Your task to perform on an android device: toggle notification dots Image 0: 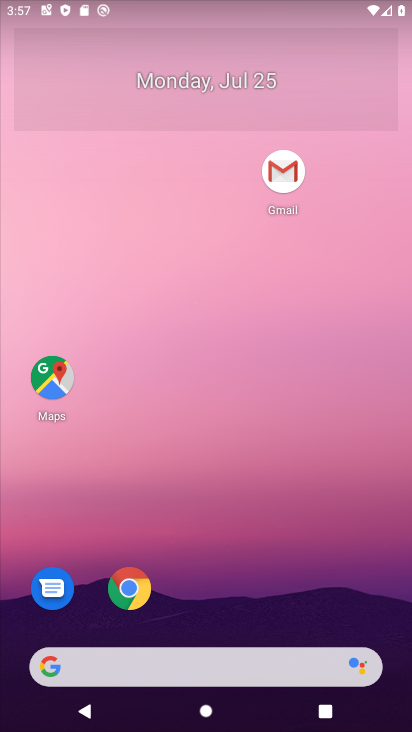
Step 0: drag from (222, 423) to (10, 217)
Your task to perform on an android device: toggle notification dots Image 1: 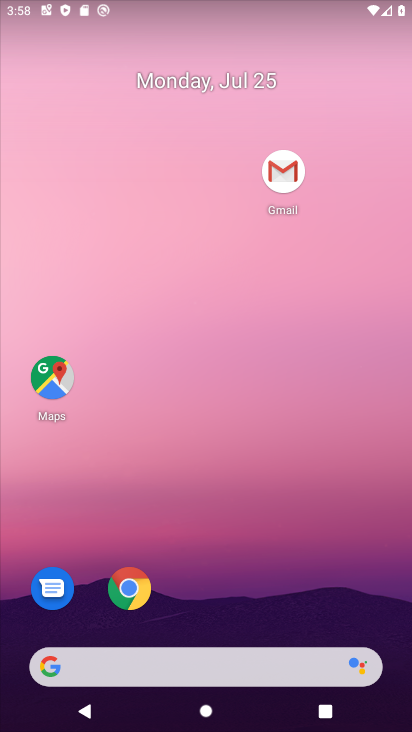
Step 1: drag from (356, 610) to (202, 60)
Your task to perform on an android device: toggle notification dots Image 2: 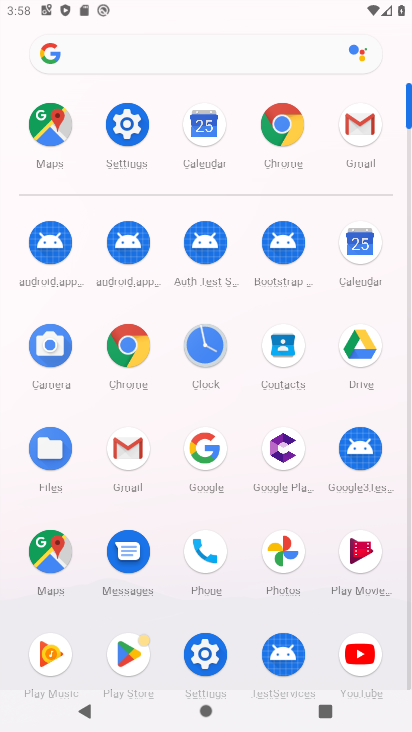
Step 2: click (128, 124)
Your task to perform on an android device: toggle notification dots Image 3: 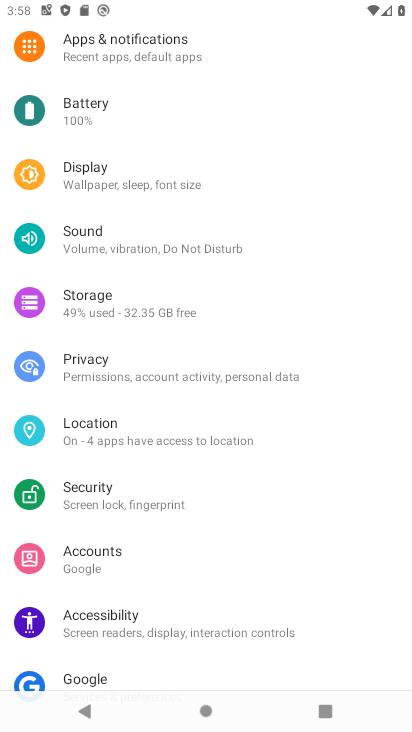
Step 3: click (143, 41)
Your task to perform on an android device: toggle notification dots Image 4: 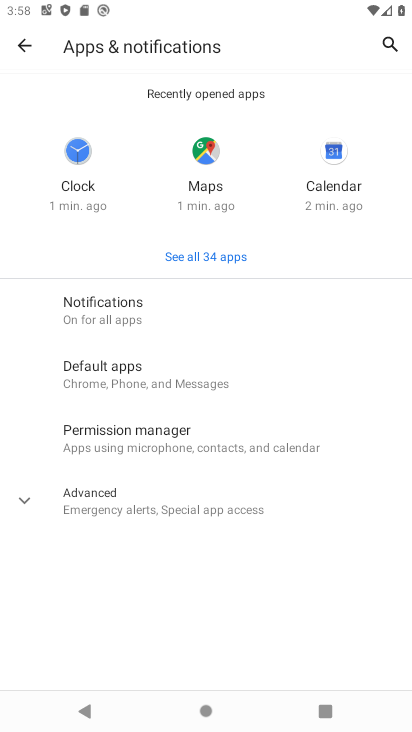
Step 4: click (133, 320)
Your task to perform on an android device: toggle notification dots Image 5: 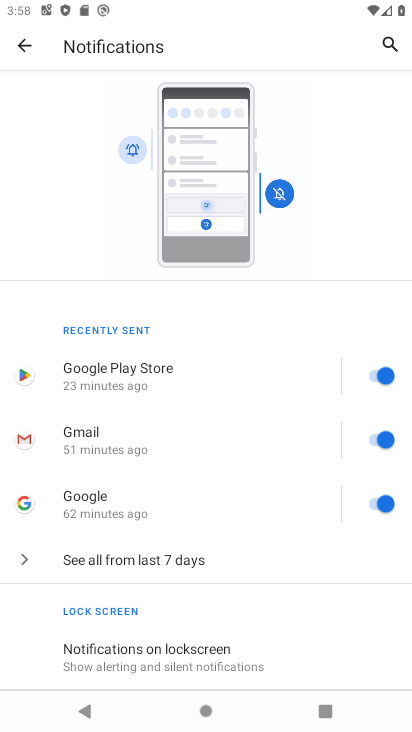
Step 5: drag from (284, 581) to (270, 117)
Your task to perform on an android device: toggle notification dots Image 6: 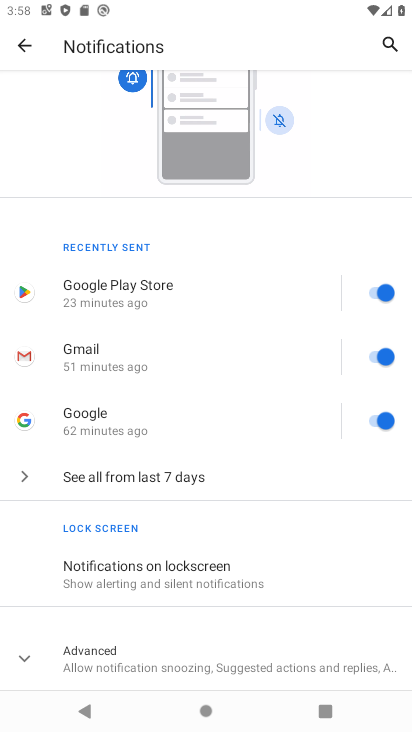
Step 6: click (162, 672)
Your task to perform on an android device: toggle notification dots Image 7: 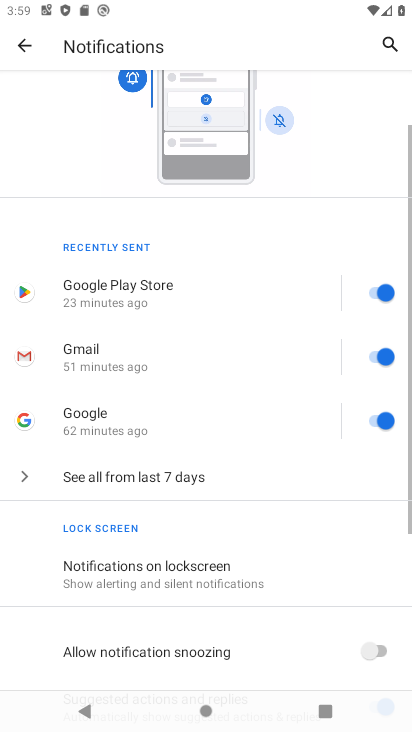
Step 7: drag from (337, 584) to (356, 126)
Your task to perform on an android device: toggle notification dots Image 8: 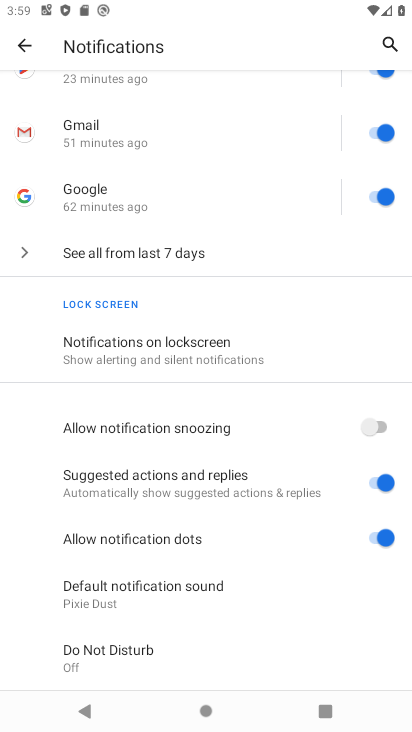
Step 8: click (378, 536)
Your task to perform on an android device: toggle notification dots Image 9: 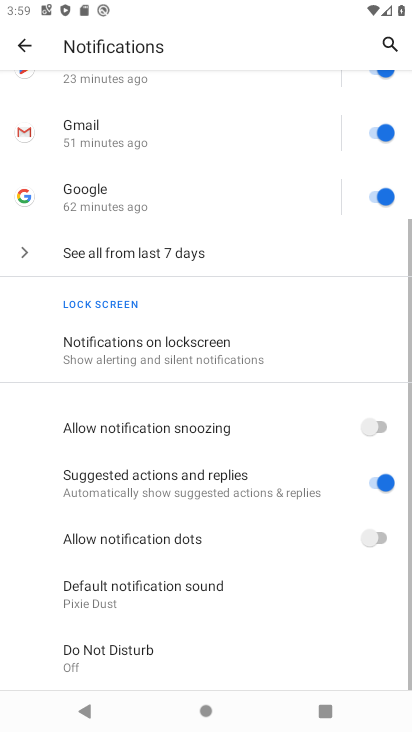
Step 9: task complete